Your task to perform on an android device: toggle translation in the chrome app Image 0: 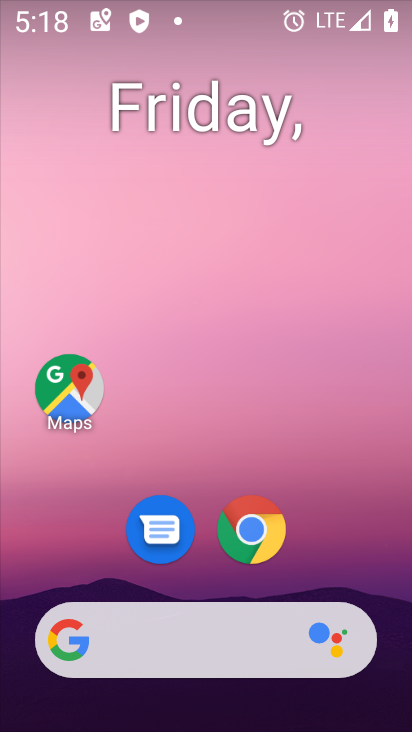
Step 0: click (255, 537)
Your task to perform on an android device: toggle translation in the chrome app Image 1: 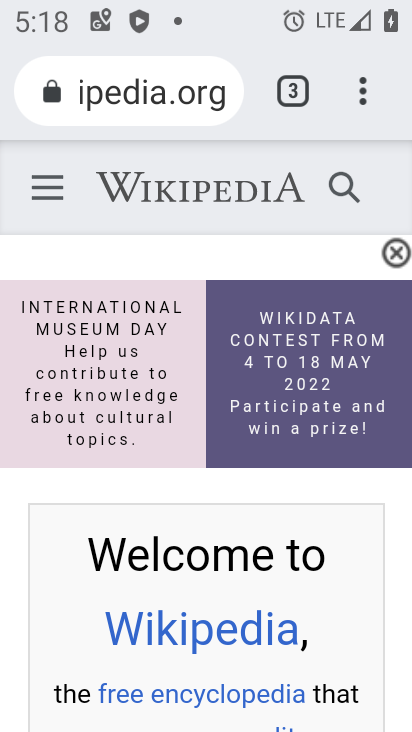
Step 1: click (357, 86)
Your task to perform on an android device: toggle translation in the chrome app Image 2: 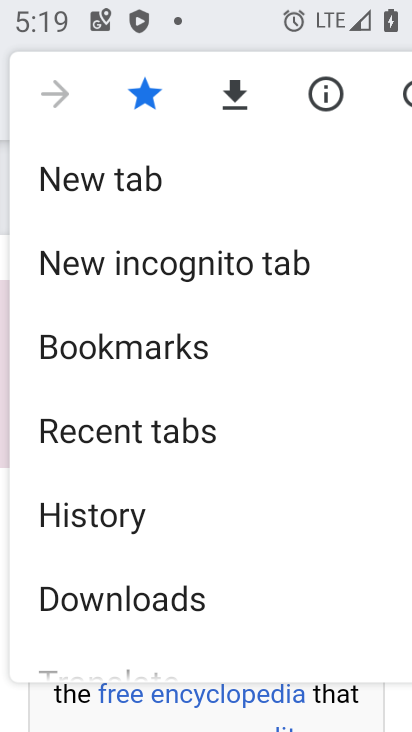
Step 2: drag from (254, 583) to (213, 234)
Your task to perform on an android device: toggle translation in the chrome app Image 3: 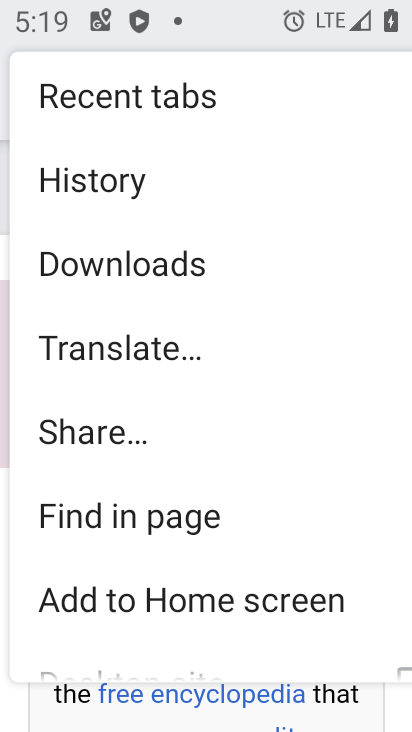
Step 3: drag from (271, 546) to (267, 163)
Your task to perform on an android device: toggle translation in the chrome app Image 4: 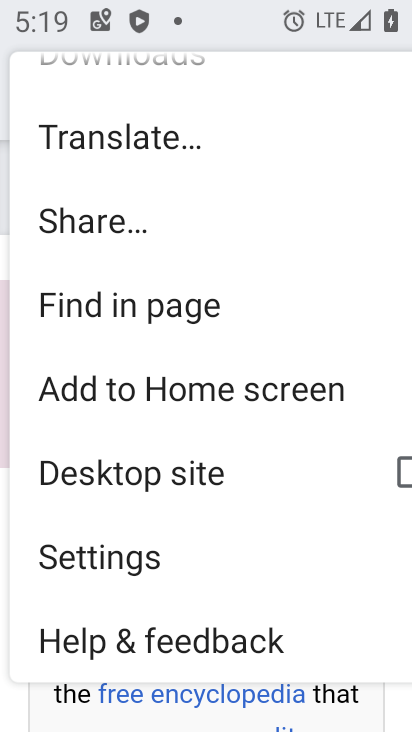
Step 4: click (134, 551)
Your task to perform on an android device: toggle translation in the chrome app Image 5: 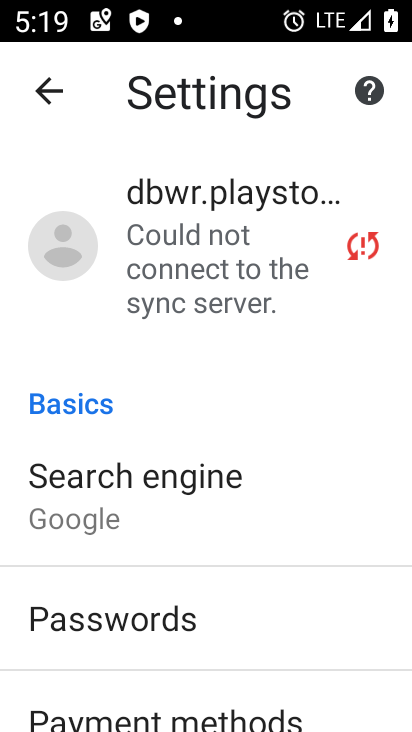
Step 5: drag from (219, 588) to (232, 217)
Your task to perform on an android device: toggle translation in the chrome app Image 6: 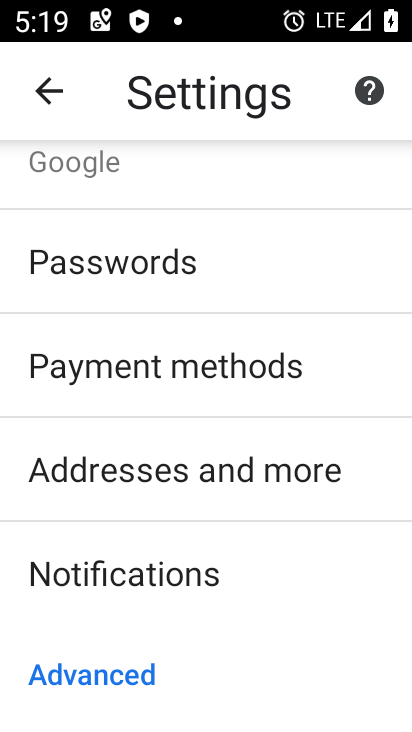
Step 6: drag from (254, 651) to (230, 299)
Your task to perform on an android device: toggle translation in the chrome app Image 7: 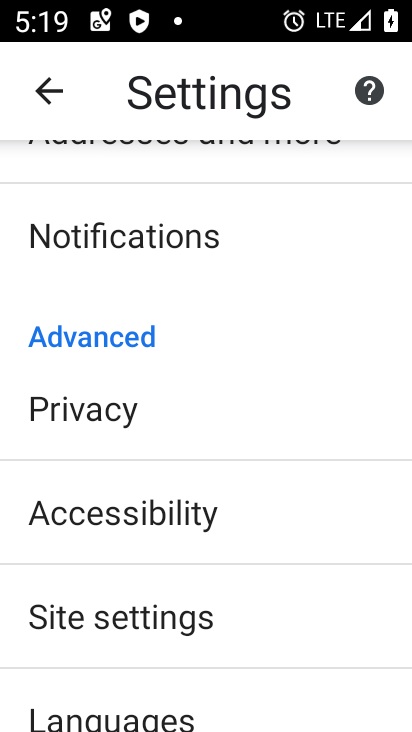
Step 7: click (195, 696)
Your task to perform on an android device: toggle translation in the chrome app Image 8: 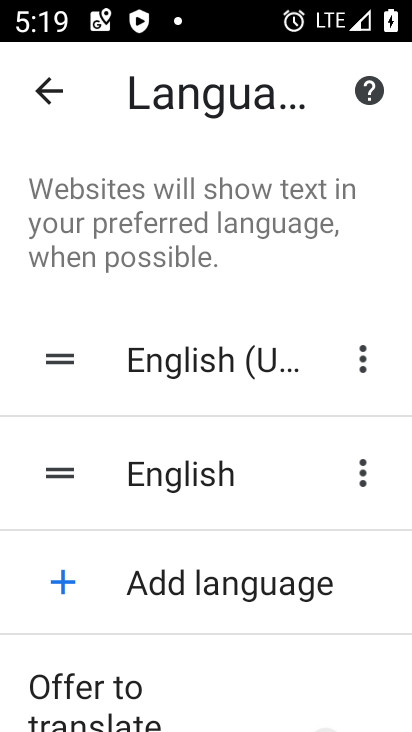
Step 8: drag from (200, 675) to (198, 260)
Your task to perform on an android device: toggle translation in the chrome app Image 9: 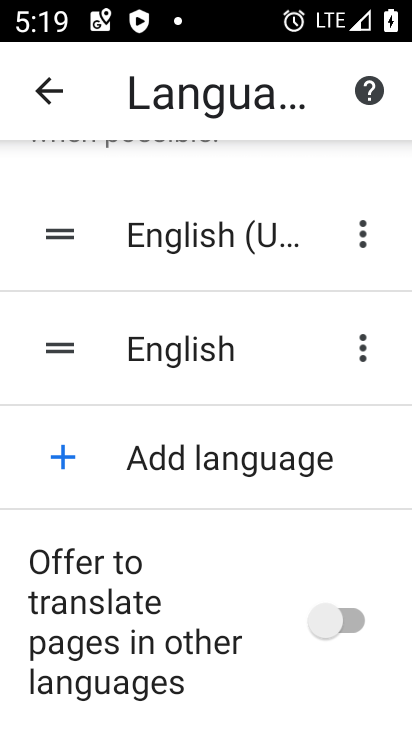
Step 9: click (342, 619)
Your task to perform on an android device: toggle translation in the chrome app Image 10: 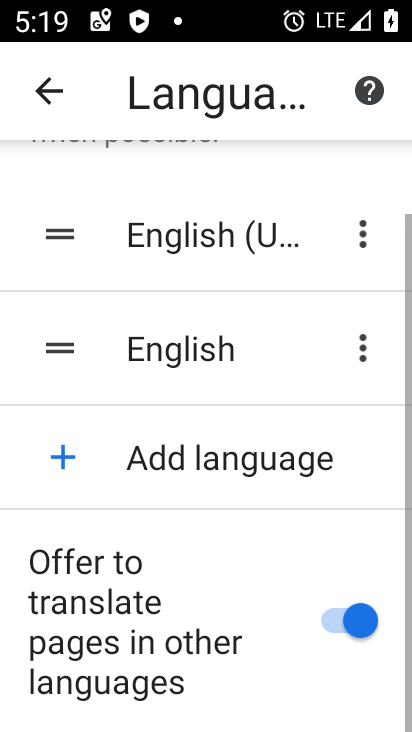
Step 10: task complete